Your task to perform on an android device: Go to privacy settings Image 0: 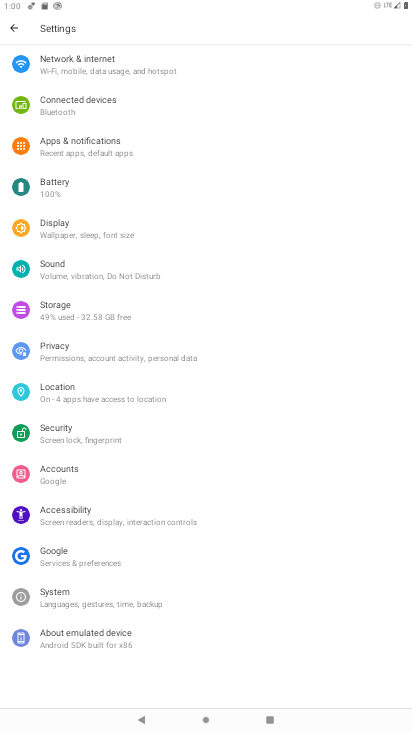
Step 0: click (67, 350)
Your task to perform on an android device: Go to privacy settings Image 1: 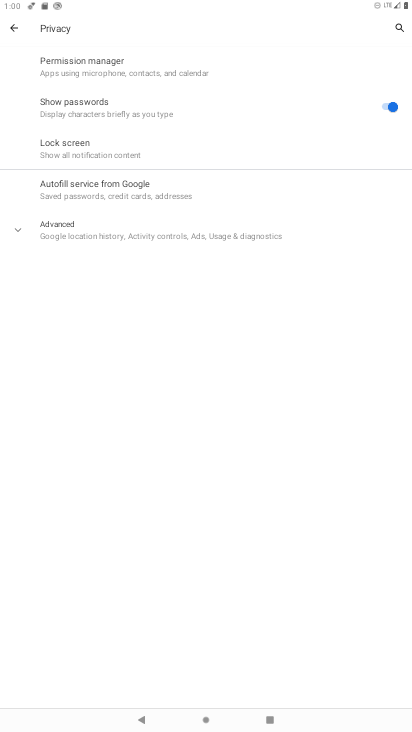
Step 1: task complete